Your task to perform on an android device: delete location history Image 0: 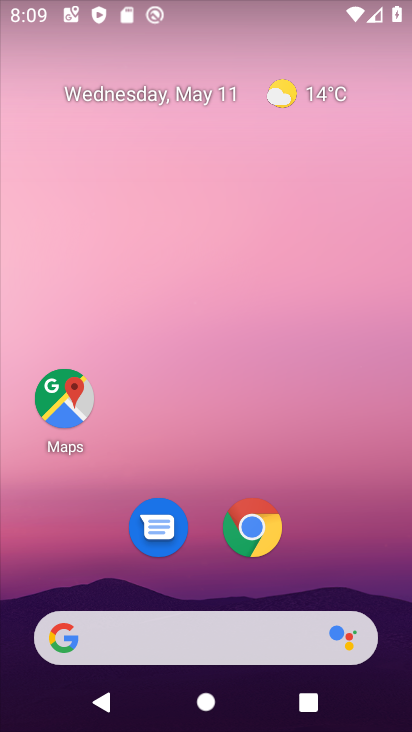
Step 0: click (53, 407)
Your task to perform on an android device: delete location history Image 1: 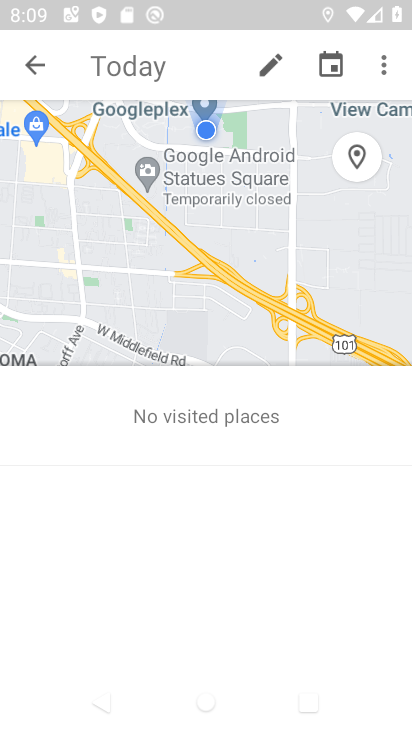
Step 1: click (383, 67)
Your task to perform on an android device: delete location history Image 2: 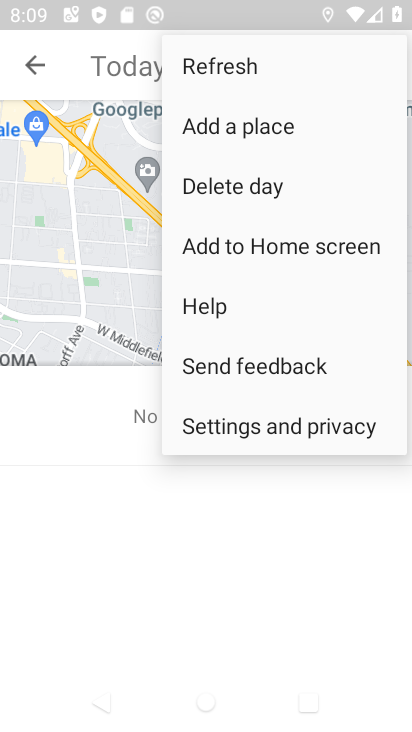
Step 2: click (240, 431)
Your task to perform on an android device: delete location history Image 3: 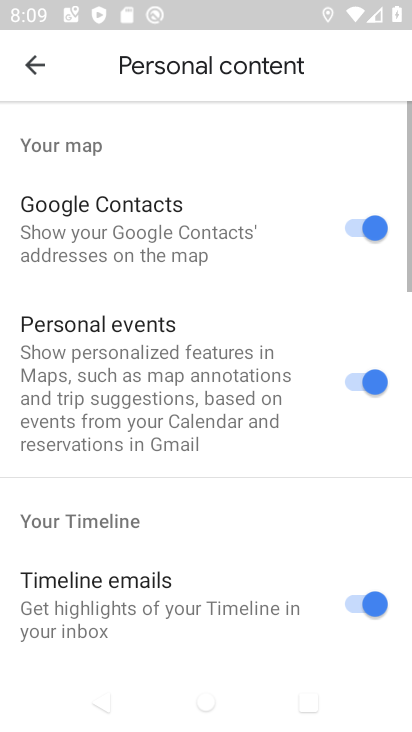
Step 3: drag from (201, 530) to (206, 168)
Your task to perform on an android device: delete location history Image 4: 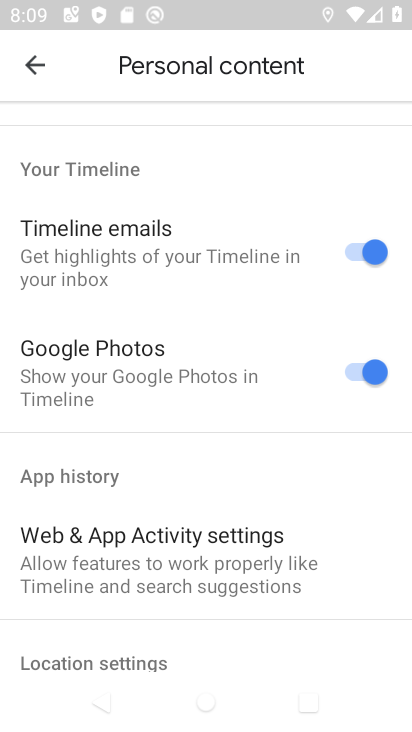
Step 4: drag from (167, 562) to (173, 178)
Your task to perform on an android device: delete location history Image 5: 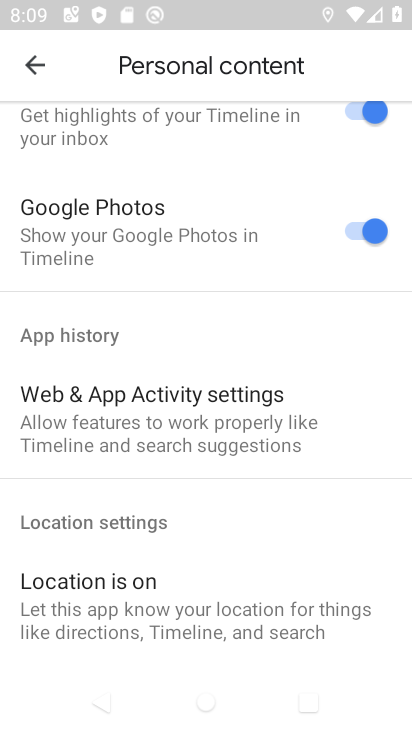
Step 5: drag from (163, 532) to (174, 209)
Your task to perform on an android device: delete location history Image 6: 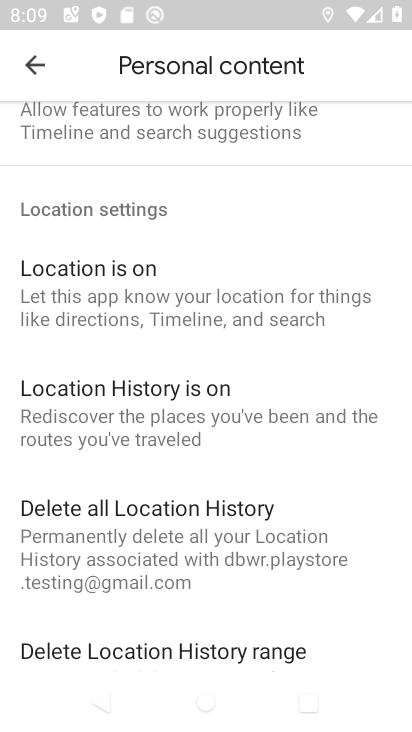
Step 6: click (108, 524)
Your task to perform on an android device: delete location history Image 7: 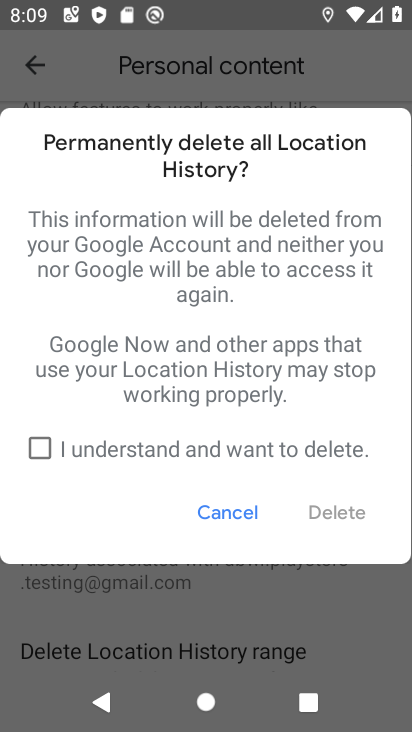
Step 7: click (45, 447)
Your task to perform on an android device: delete location history Image 8: 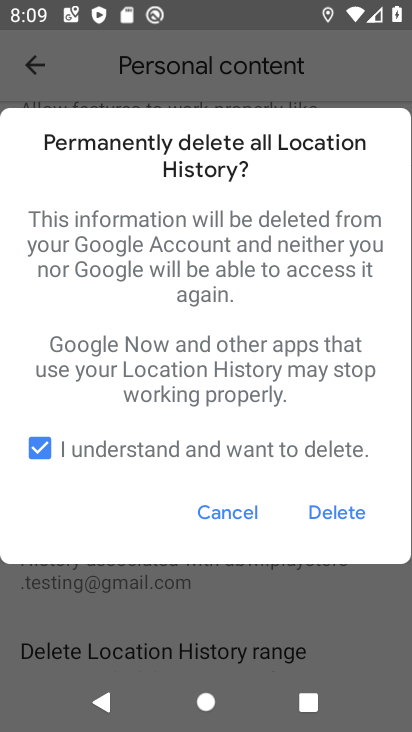
Step 8: click (328, 510)
Your task to perform on an android device: delete location history Image 9: 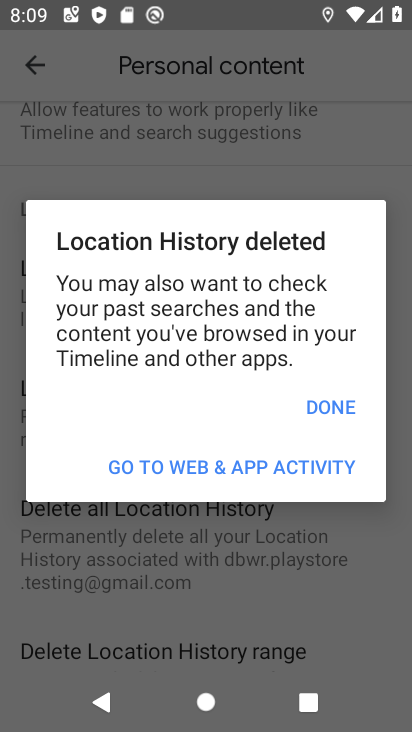
Step 9: click (325, 408)
Your task to perform on an android device: delete location history Image 10: 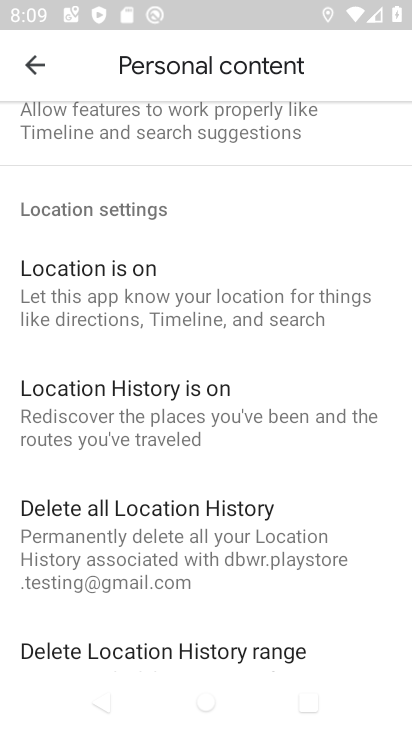
Step 10: task complete